Your task to perform on an android device: all mails in gmail Image 0: 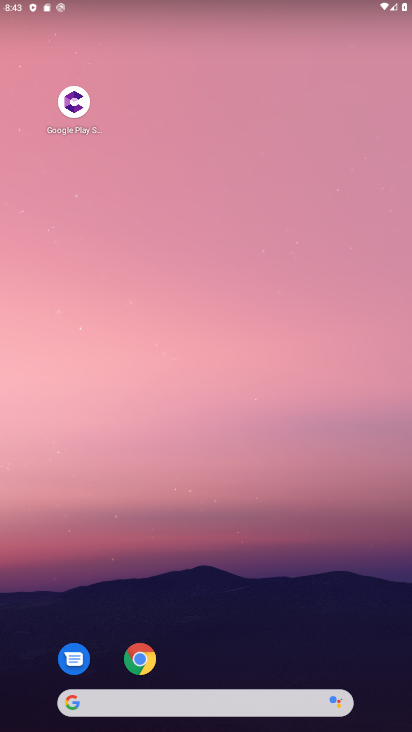
Step 0: drag from (263, 670) to (167, 0)
Your task to perform on an android device: all mails in gmail Image 1: 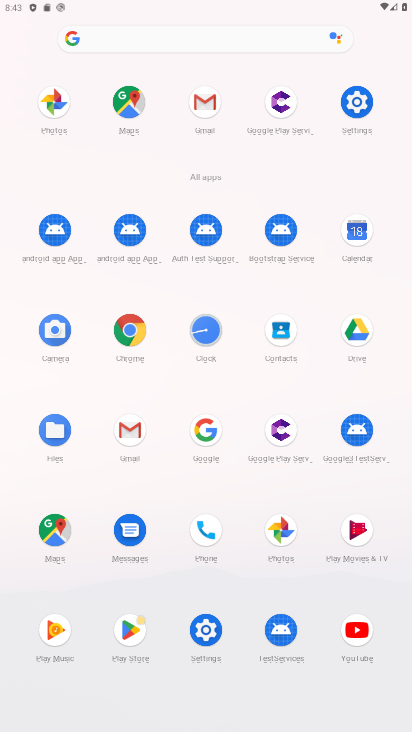
Step 1: click (199, 113)
Your task to perform on an android device: all mails in gmail Image 2: 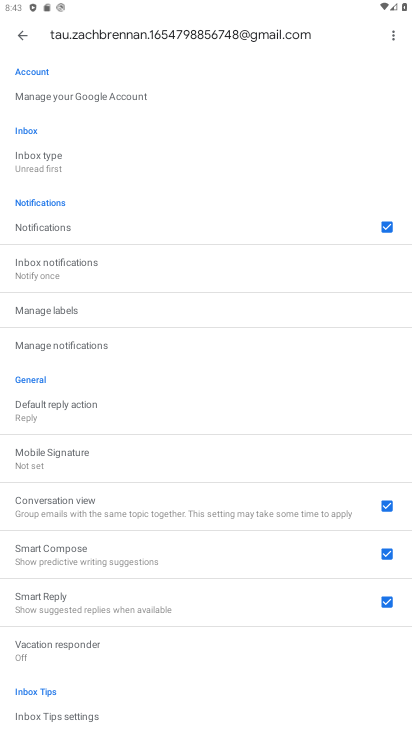
Step 2: click (23, 36)
Your task to perform on an android device: all mails in gmail Image 3: 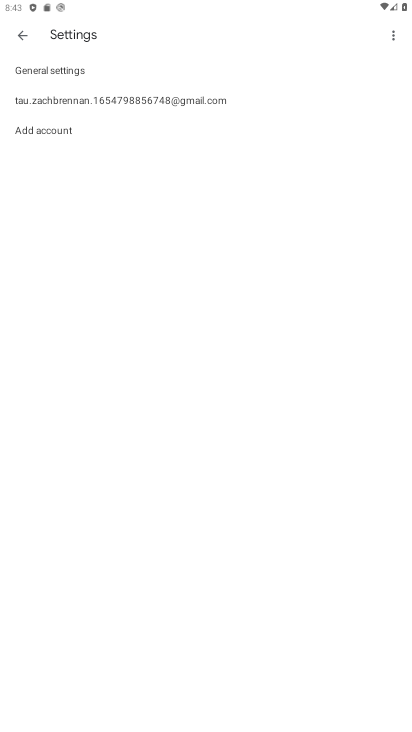
Step 3: click (23, 37)
Your task to perform on an android device: all mails in gmail Image 4: 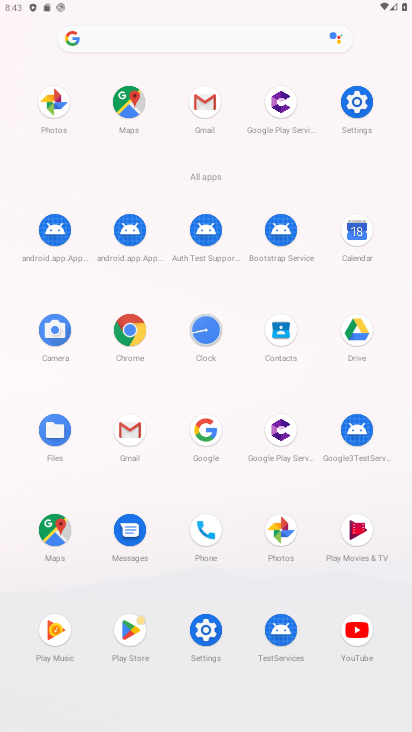
Step 4: click (220, 97)
Your task to perform on an android device: all mails in gmail Image 5: 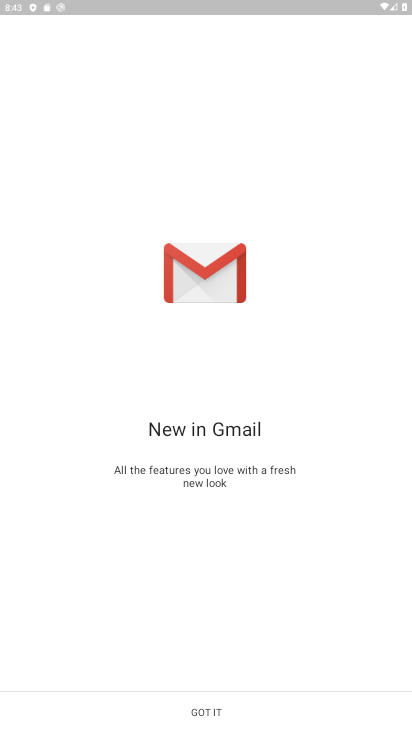
Step 5: click (229, 712)
Your task to perform on an android device: all mails in gmail Image 6: 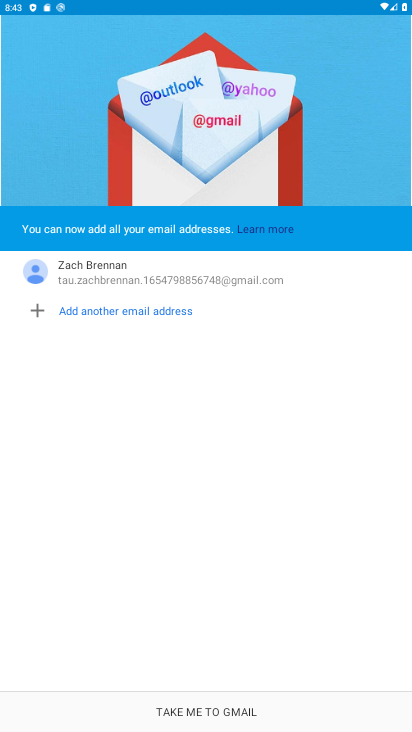
Step 6: click (229, 711)
Your task to perform on an android device: all mails in gmail Image 7: 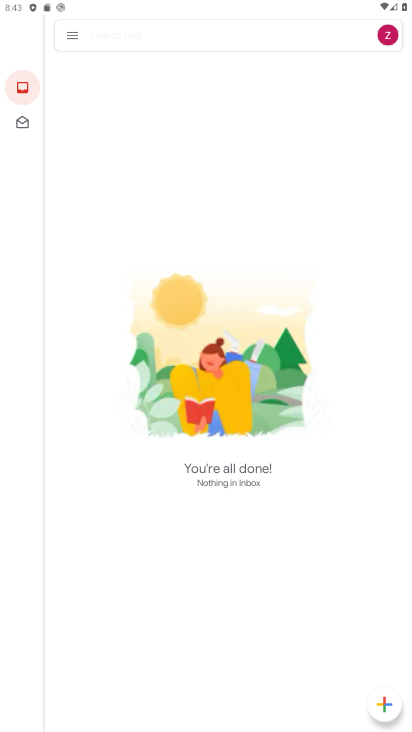
Step 7: click (68, 41)
Your task to perform on an android device: all mails in gmail Image 8: 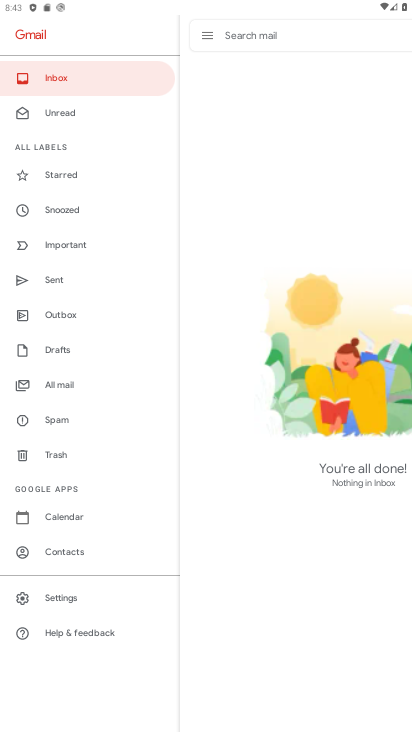
Step 8: click (68, 386)
Your task to perform on an android device: all mails in gmail Image 9: 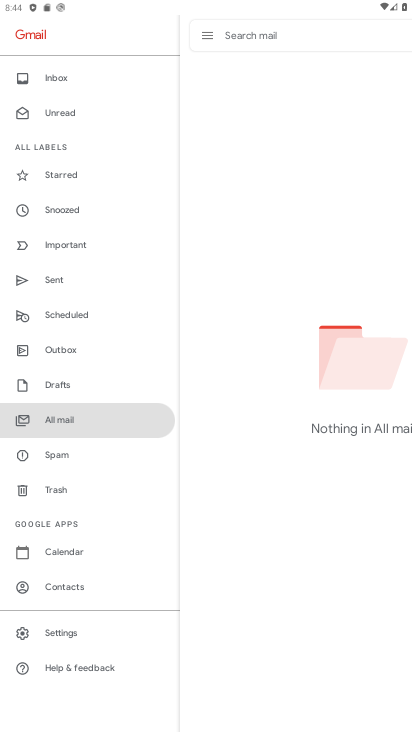
Step 9: click (86, 420)
Your task to perform on an android device: all mails in gmail Image 10: 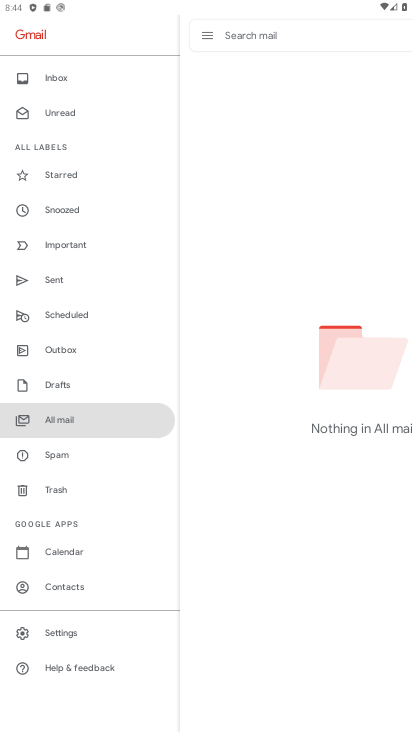
Step 10: task complete